Your task to perform on an android device: Open the clock app Image 0: 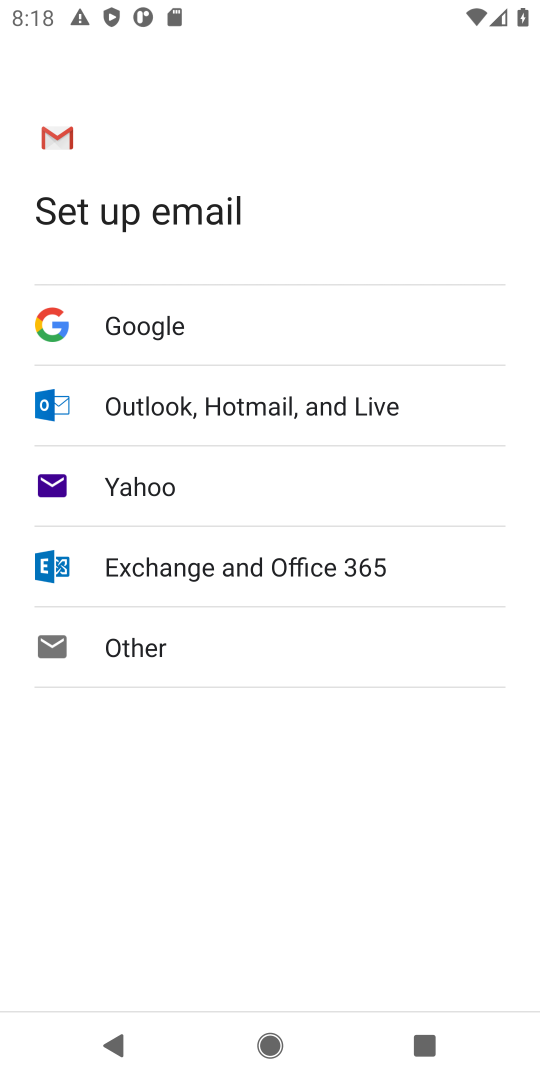
Step 0: press home button
Your task to perform on an android device: Open the clock app Image 1: 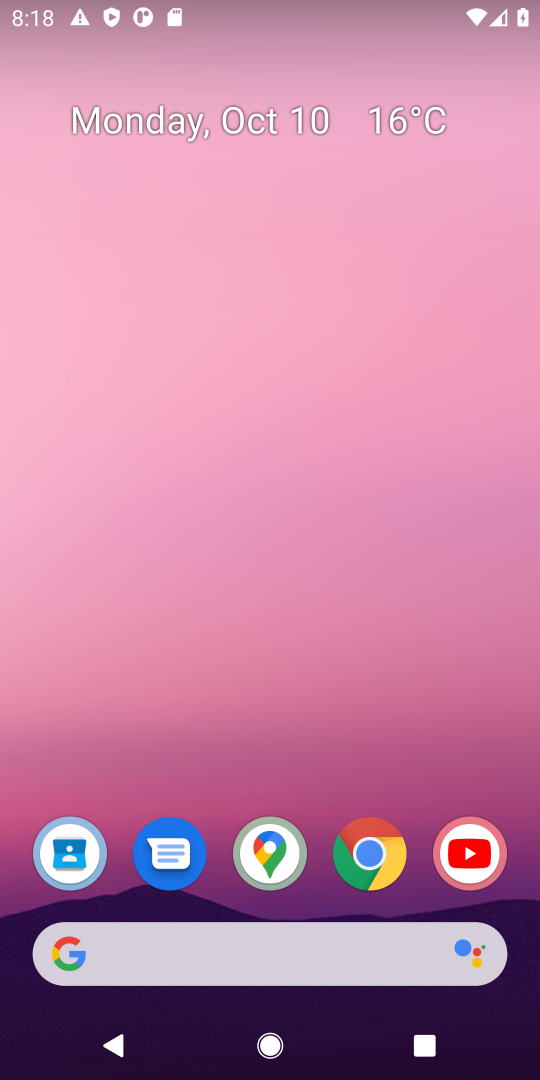
Step 1: drag from (304, 834) to (243, 76)
Your task to perform on an android device: Open the clock app Image 2: 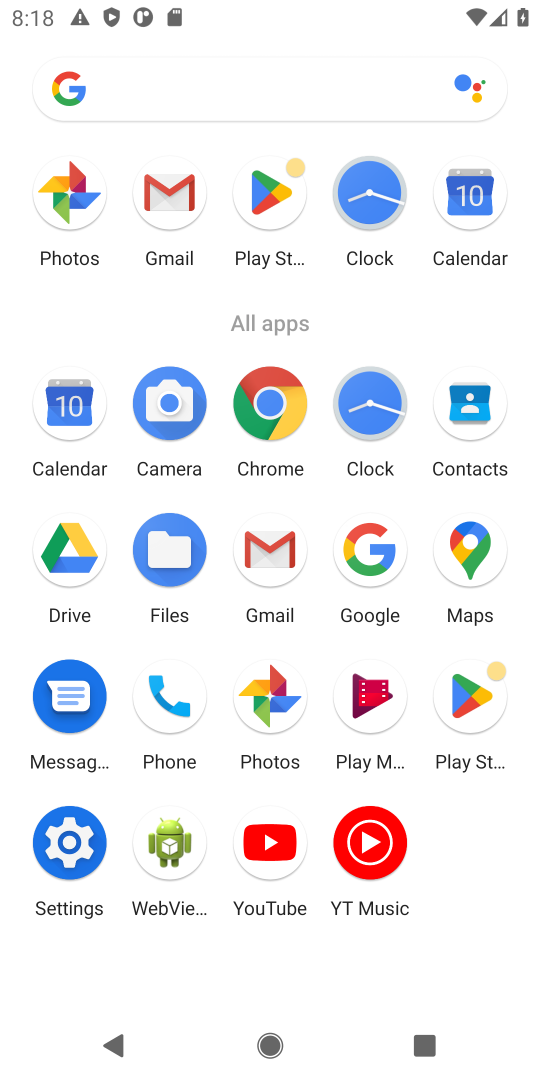
Step 2: click (381, 401)
Your task to perform on an android device: Open the clock app Image 3: 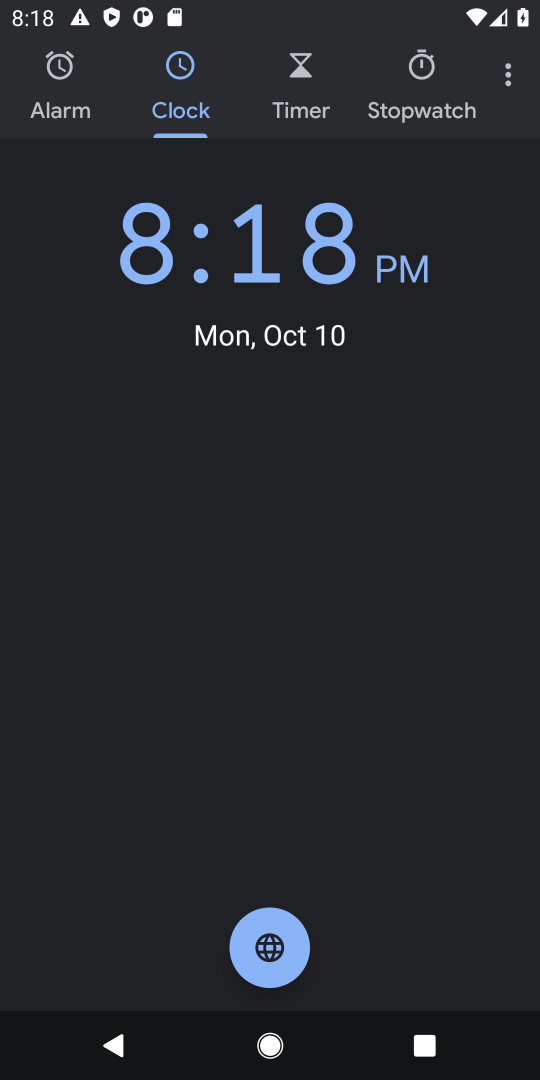
Step 3: task complete